Your task to perform on an android device: View the shopping cart on amazon.com. Add bose soundlink mini to the cart on amazon.com Image 0: 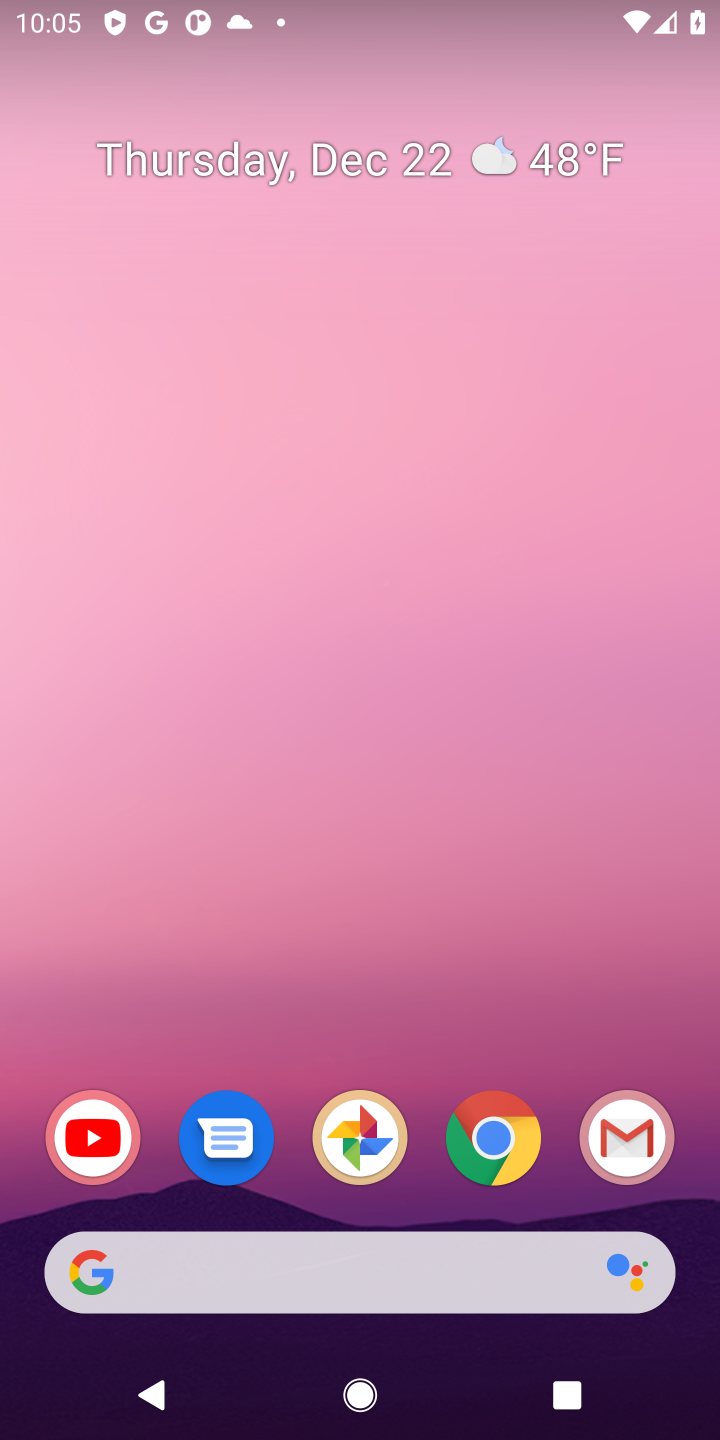
Step 0: click (484, 1151)
Your task to perform on an android device: View the shopping cart on amazon.com. Add bose soundlink mini to the cart on amazon.com Image 1: 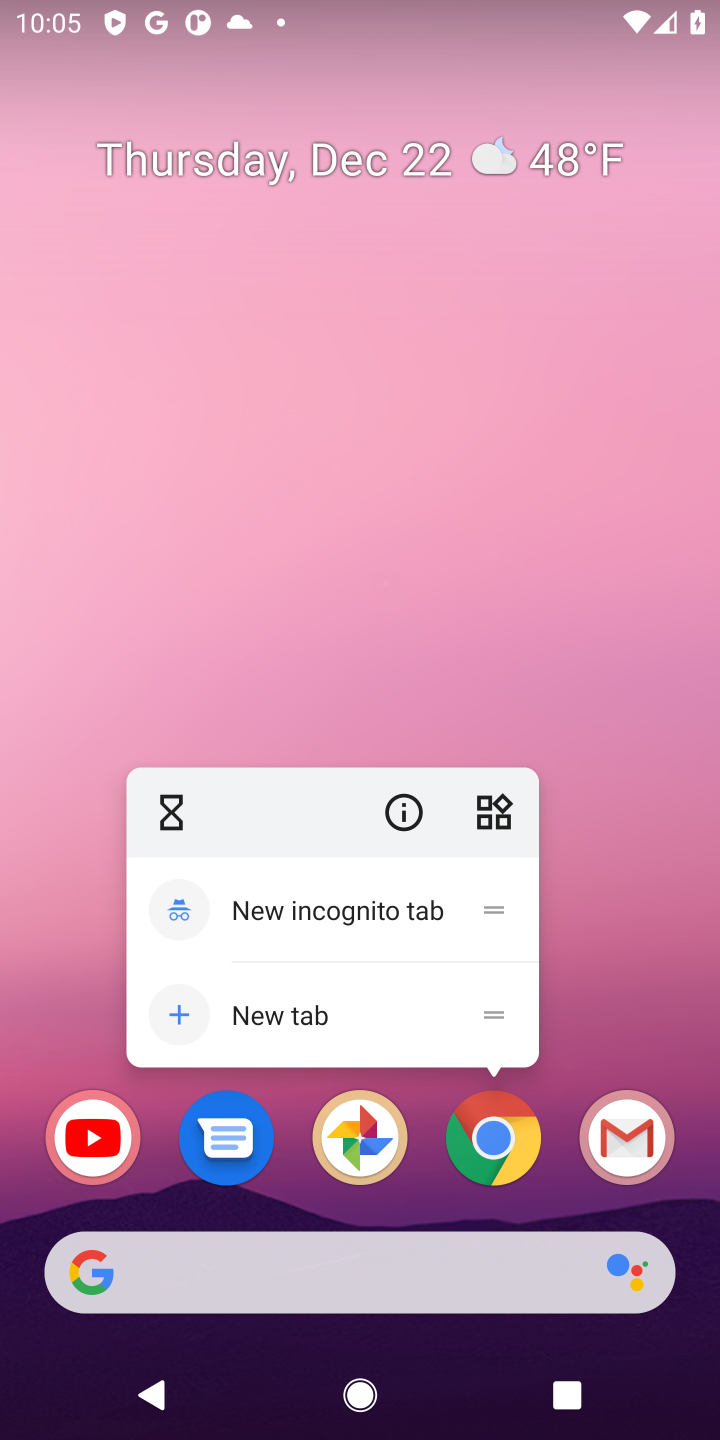
Step 1: click (484, 1151)
Your task to perform on an android device: View the shopping cart on amazon.com. Add bose soundlink mini to the cart on amazon.com Image 2: 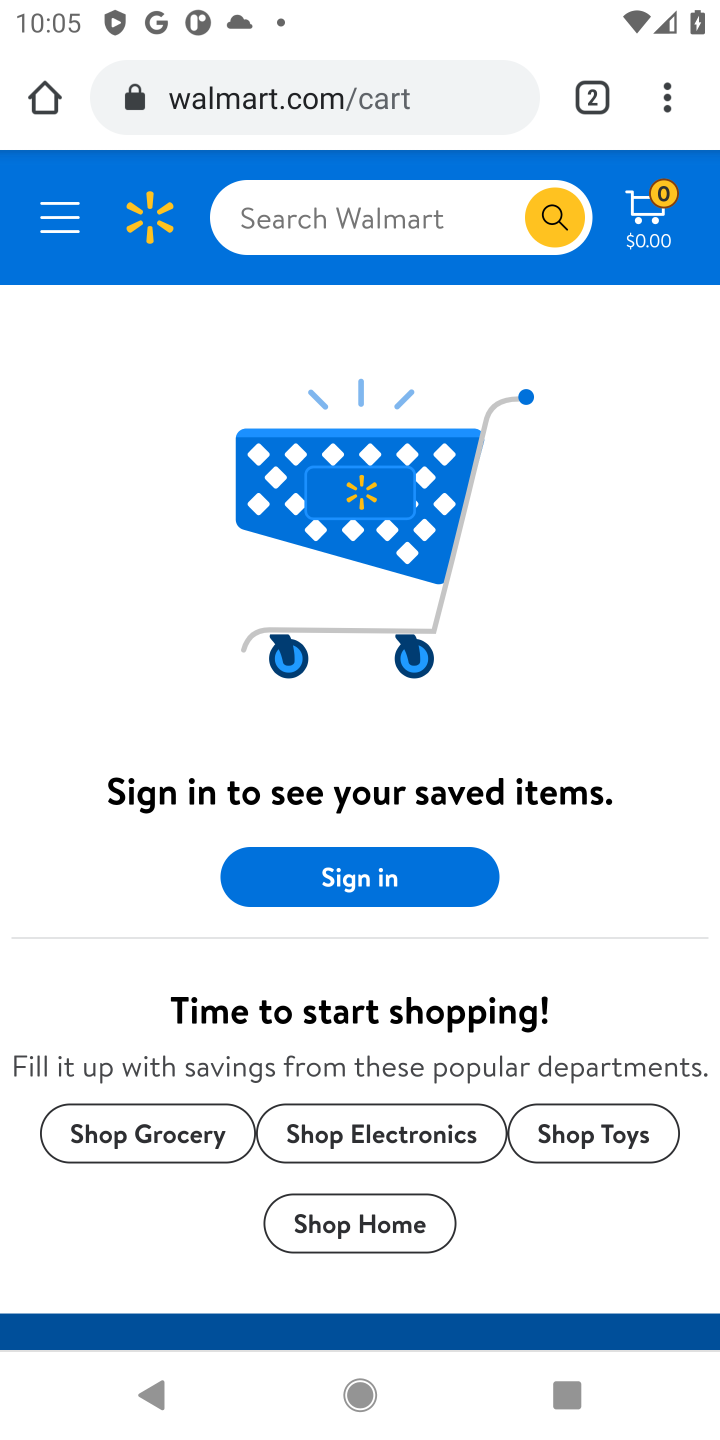
Step 2: click (248, 102)
Your task to perform on an android device: View the shopping cart on amazon.com. Add bose soundlink mini to the cart on amazon.com Image 3: 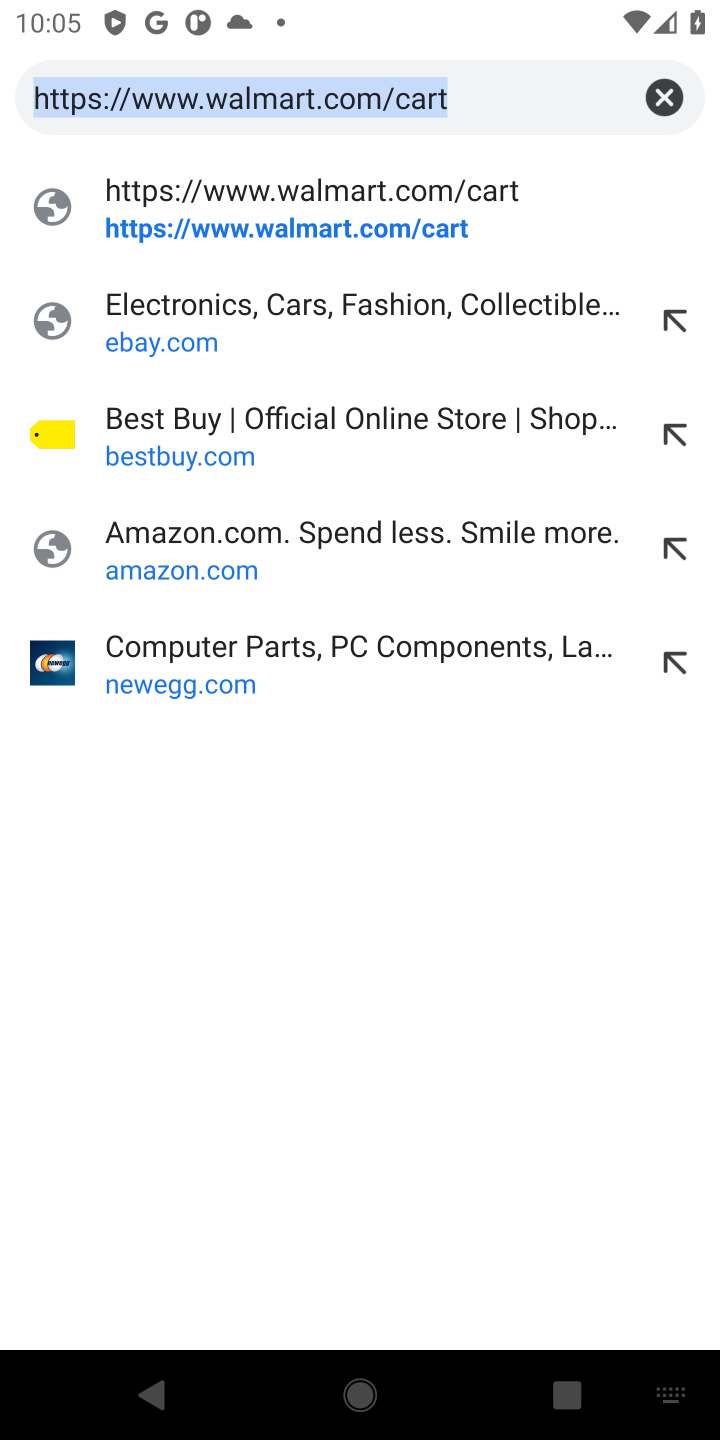
Step 3: type "amazon.com"
Your task to perform on an android device: View the shopping cart on amazon.com. Add bose soundlink mini to the cart on amazon.com Image 4: 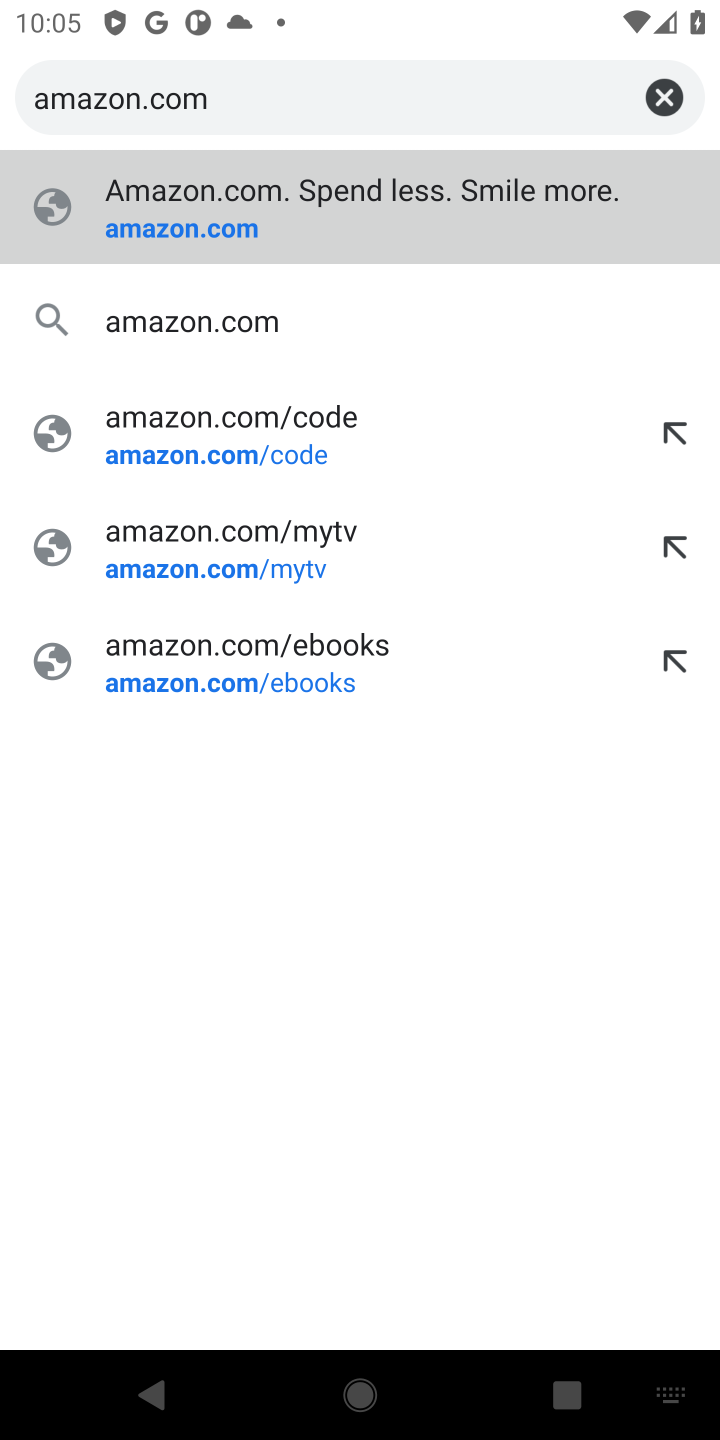
Step 4: click (429, 236)
Your task to perform on an android device: View the shopping cart on amazon.com. Add bose soundlink mini to the cart on amazon.com Image 5: 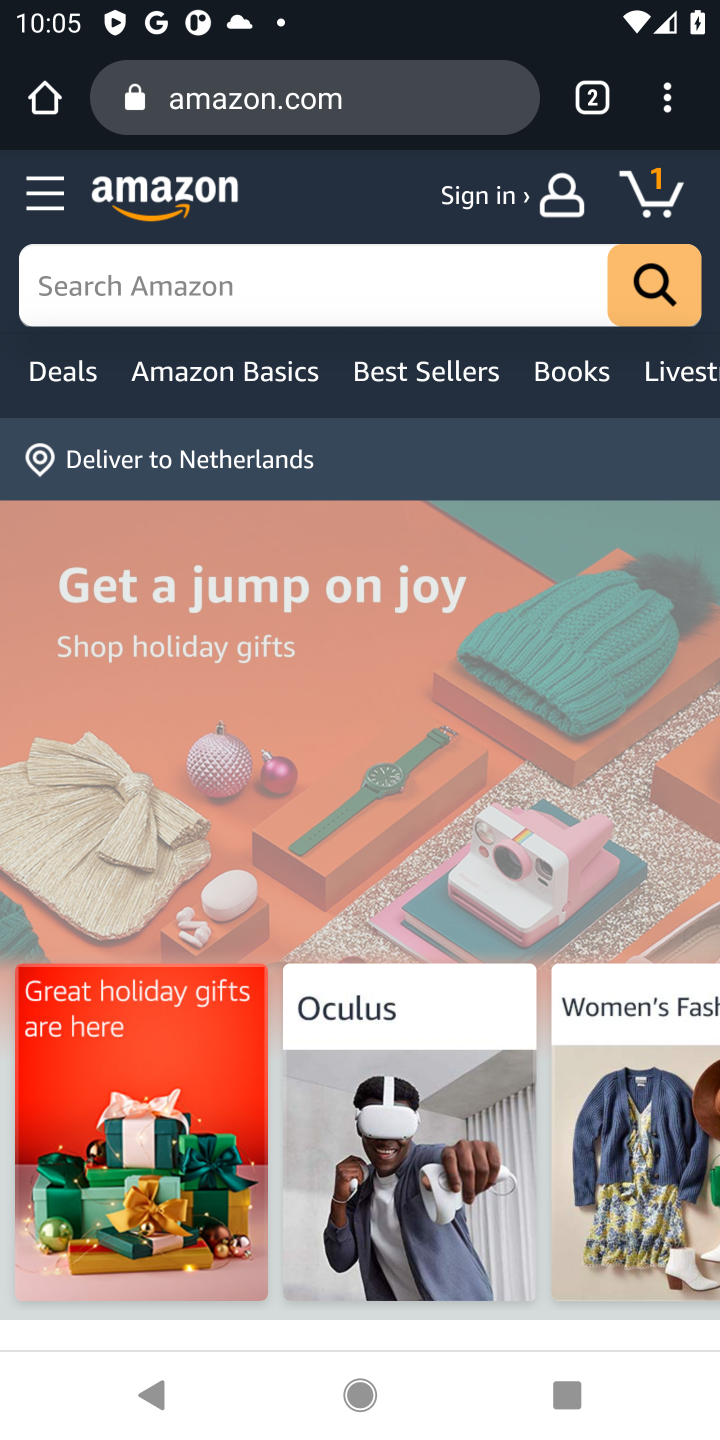
Step 5: click (644, 203)
Your task to perform on an android device: View the shopping cart on amazon.com. Add bose soundlink mini to the cart on amazon.com Image 6: 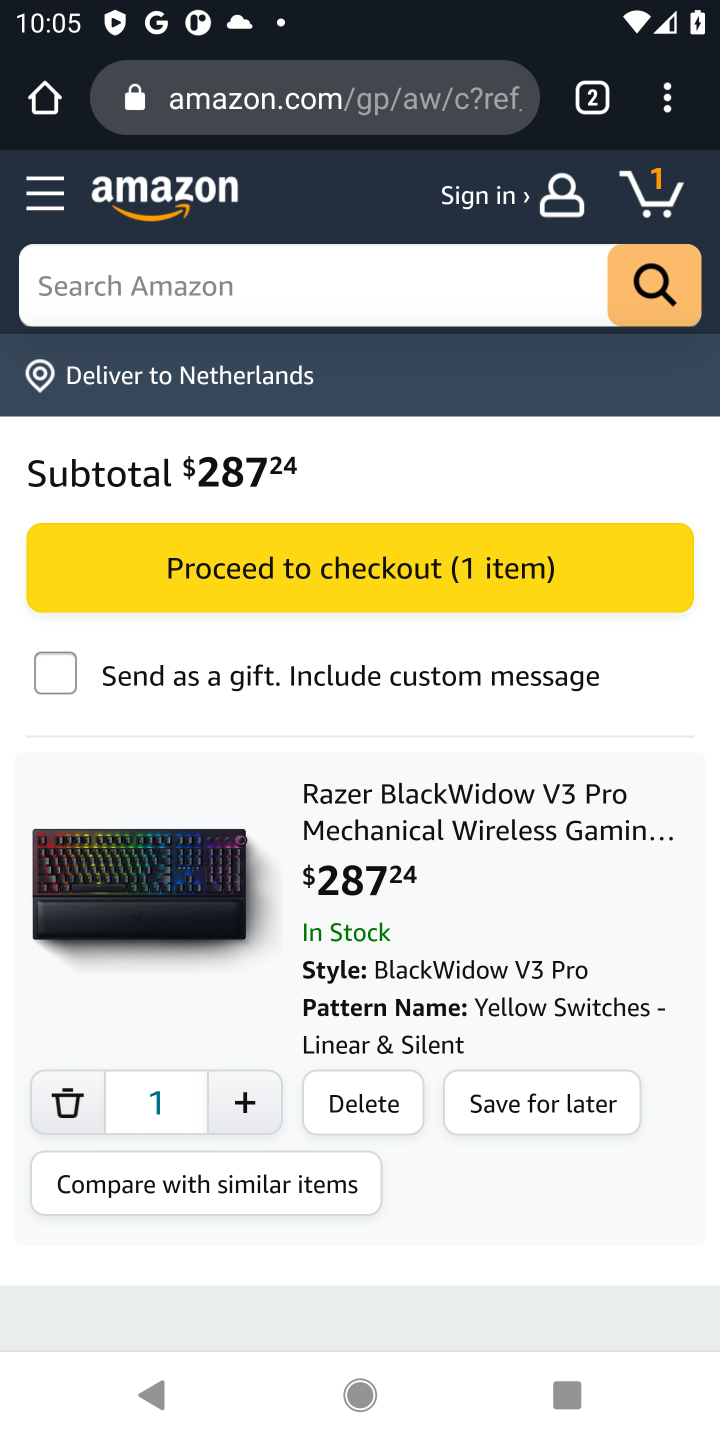
Step 6: click (346, 285)
Your task to perform on an android device: View the shopping cart on amazon.com. Add bose soundlink mini to the cart on amazon.com Image 7: 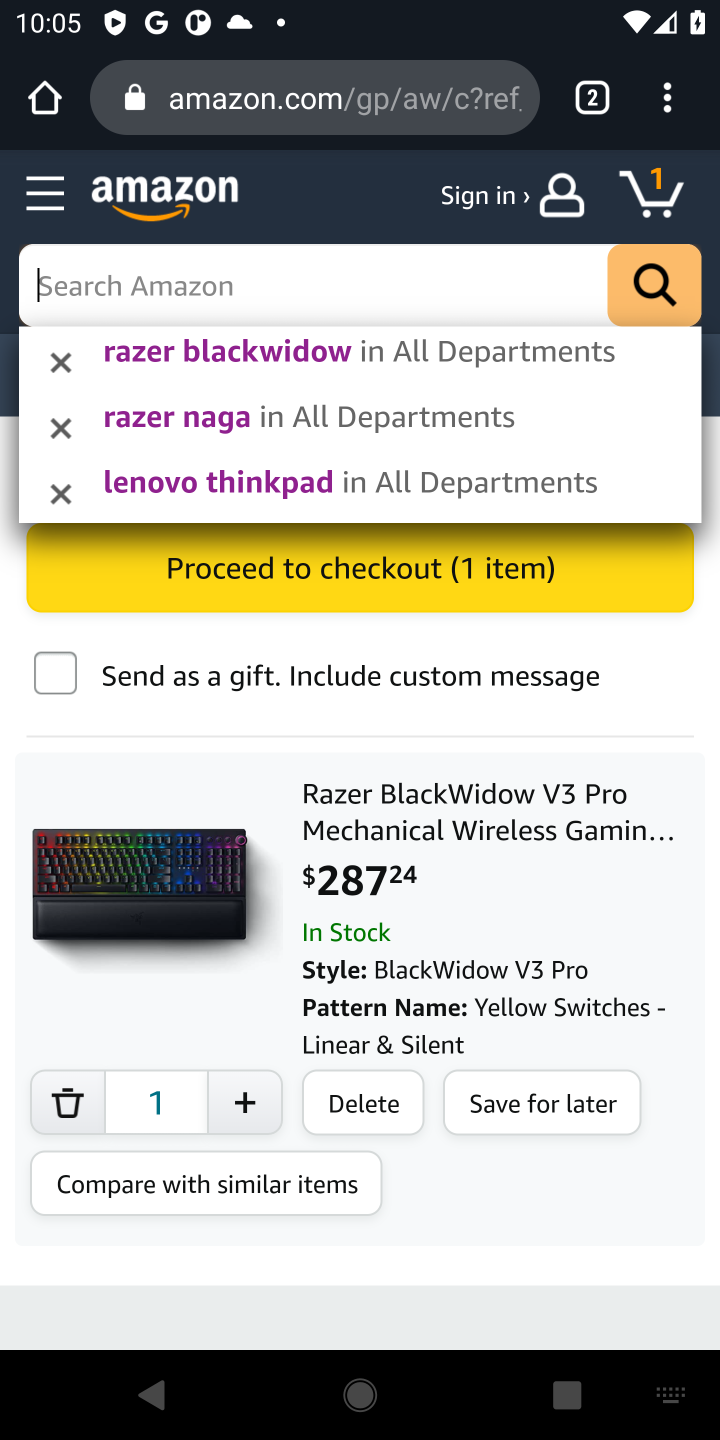
Step 7: type "bose soundlink mini"
Your task to perform on an android device: View the shopping cart on amazon.com. Add bose soundlink mini to the cart on amazon.com Image 8: 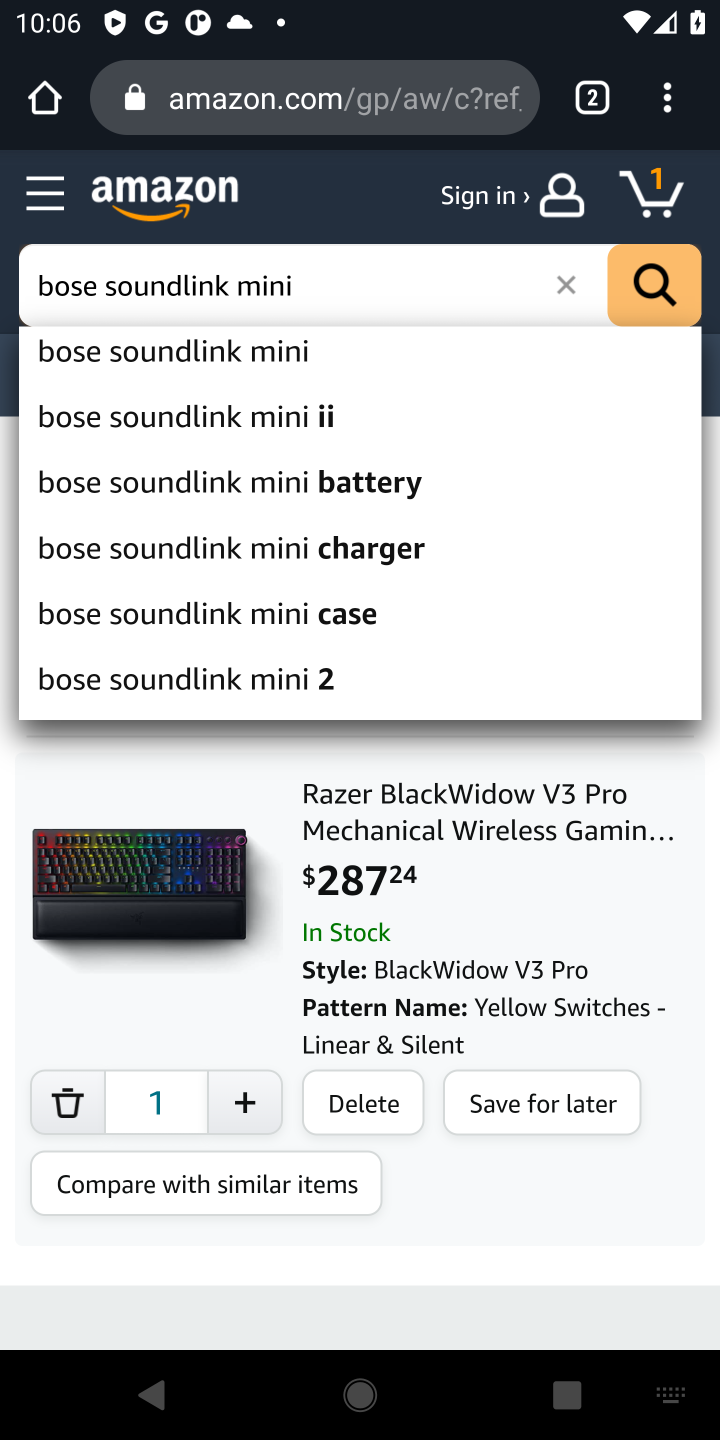
Step 8: click (301, 360)
Your task to perform on an android device: View the shopping cart on amazon.com. Add bose soundlink mini to the cart on amazon.com Image 9: 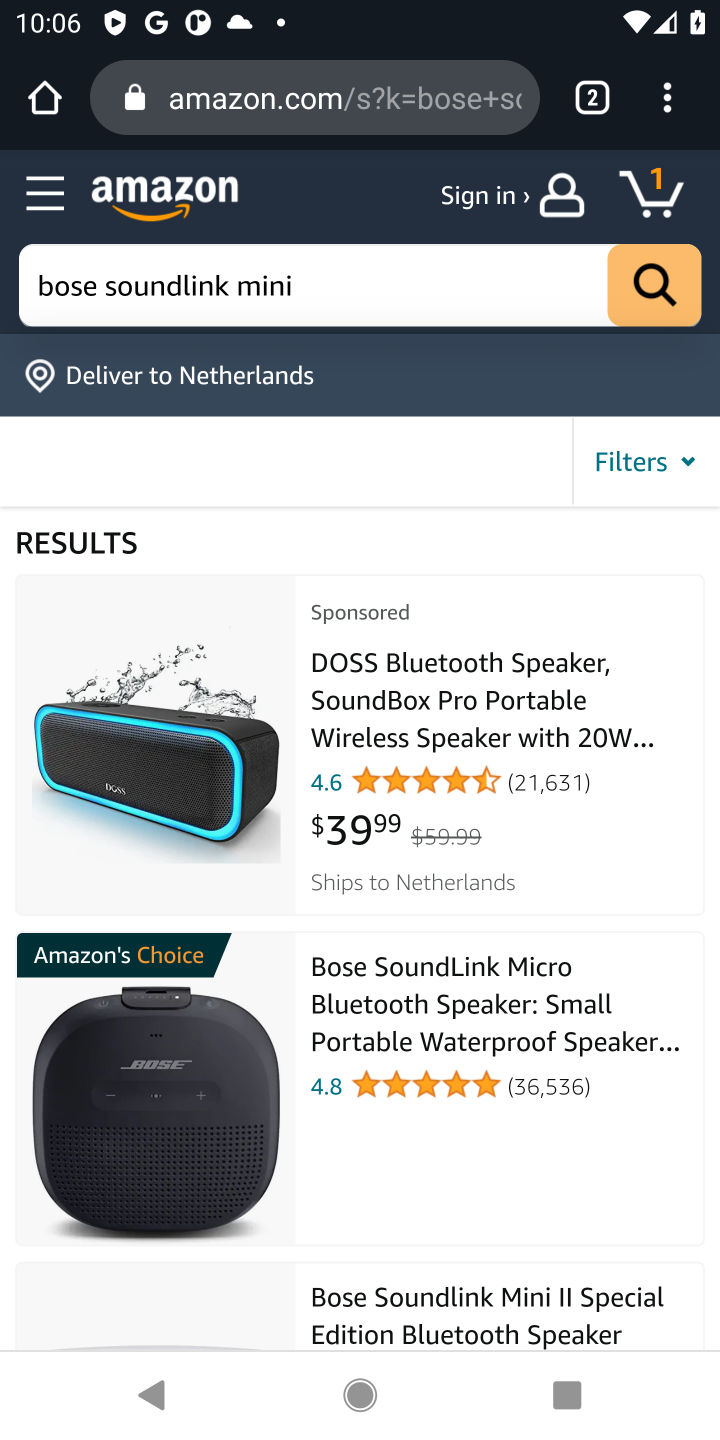
Step 9: drag from (449, 1246) to (450, 851)
Your task to perform on an android device: View the shopping cart on amazon.com. Add bose soundlink mini to the cart on amazon.com Image 10: 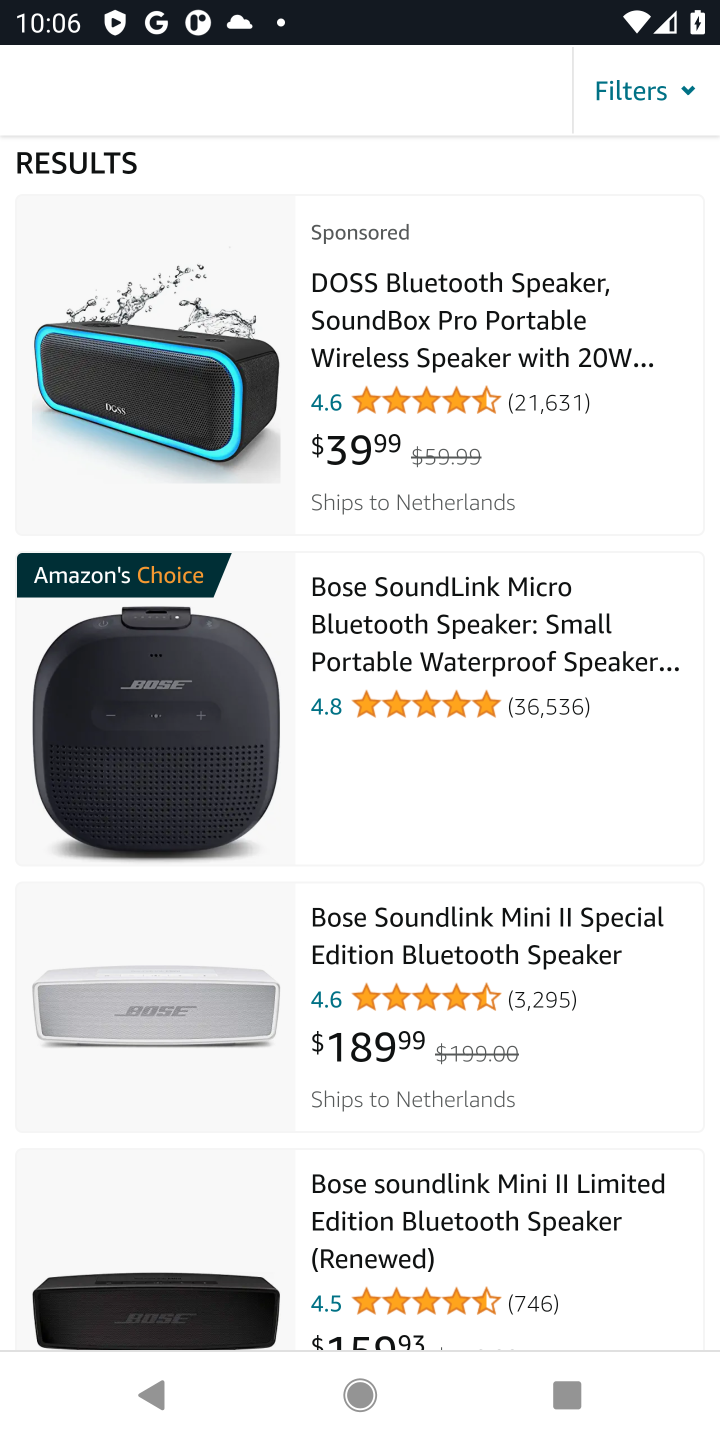
Step 10: click (350, 952)
Your task to perform on an android device: View the shopping cart on amazon.com. Add bose soundlink mini to the cart on amazon.com Image 11: 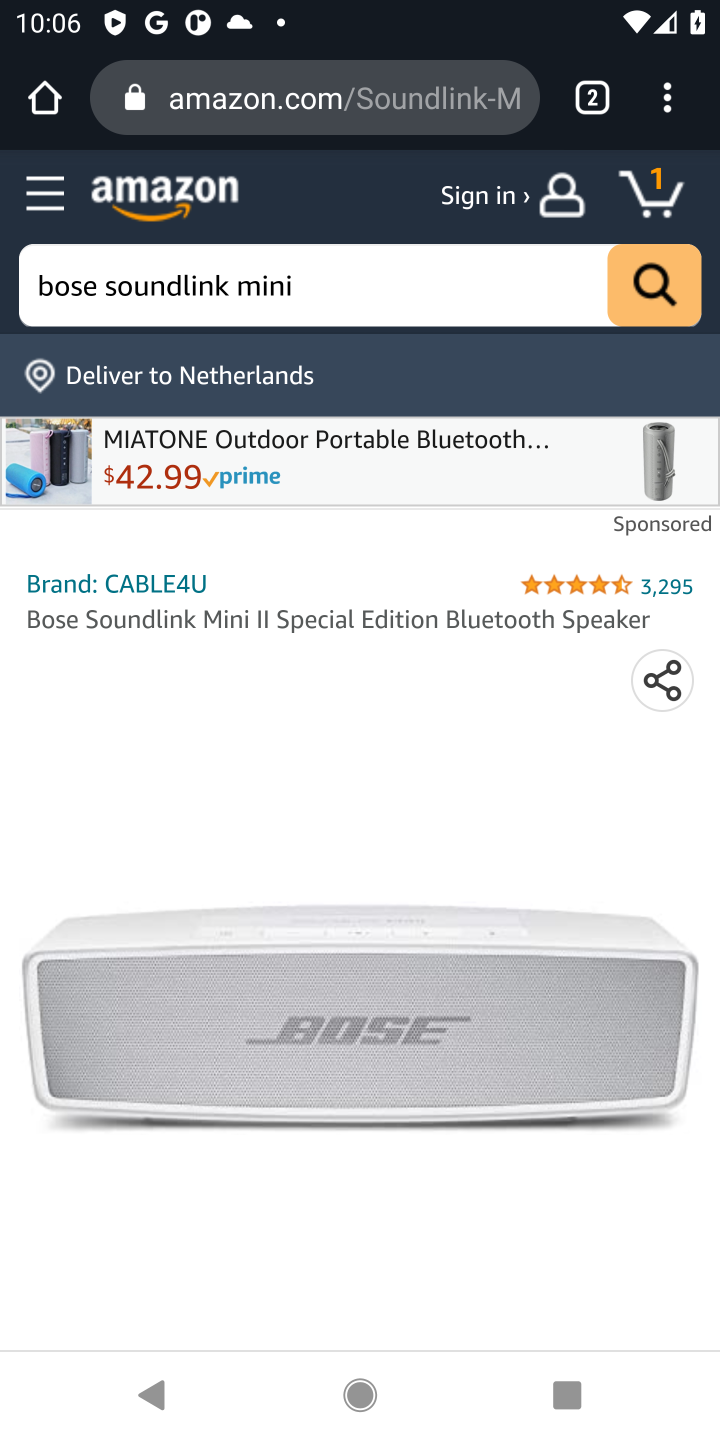
Step 11: drag from (519, 1266) to (524, 649)
Your task to perform on an android device: View the shopping cart on amazon.com. Add bose soundlink mini to the cart on amazon.com Image 12: 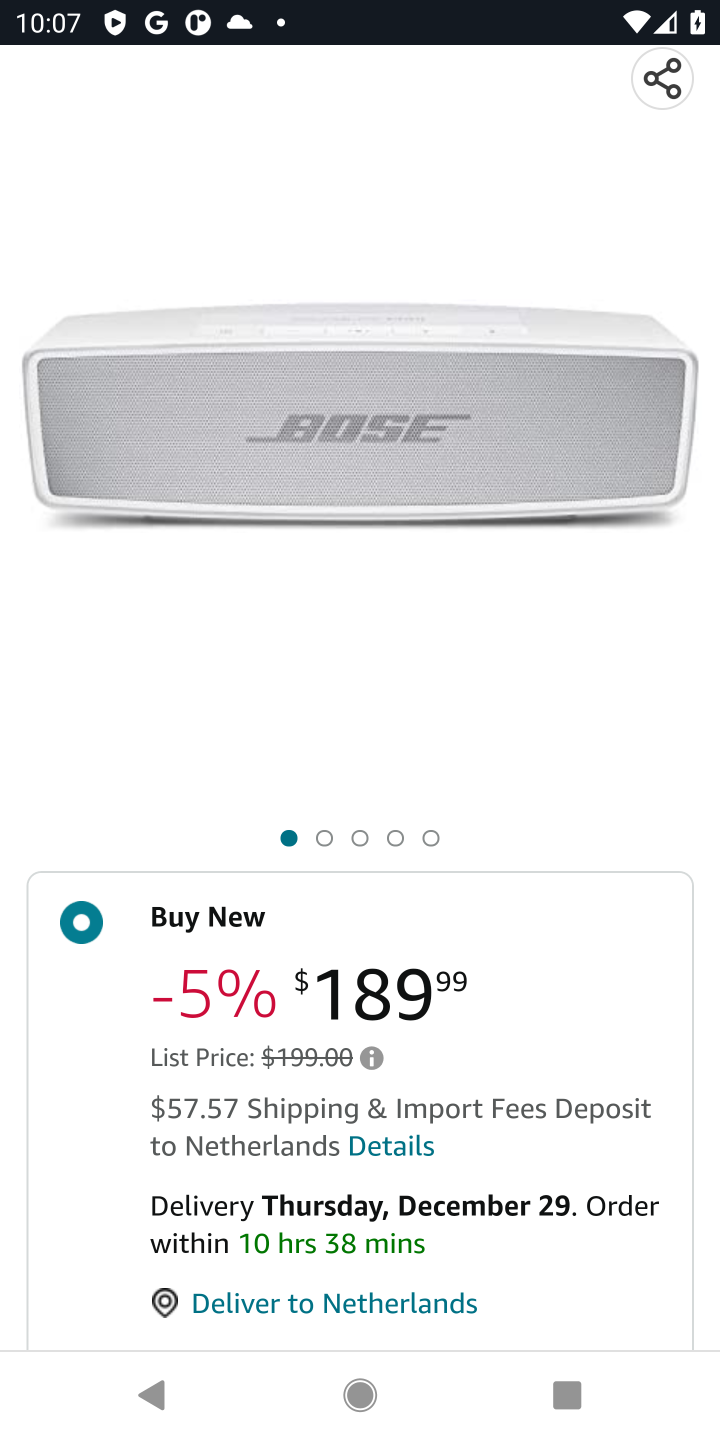
Step 12: press home button
Your task to perform on an android device: View the shopping cart on amazon.com. Add bose soundlink mini to the cart on amazon.com Image 13: 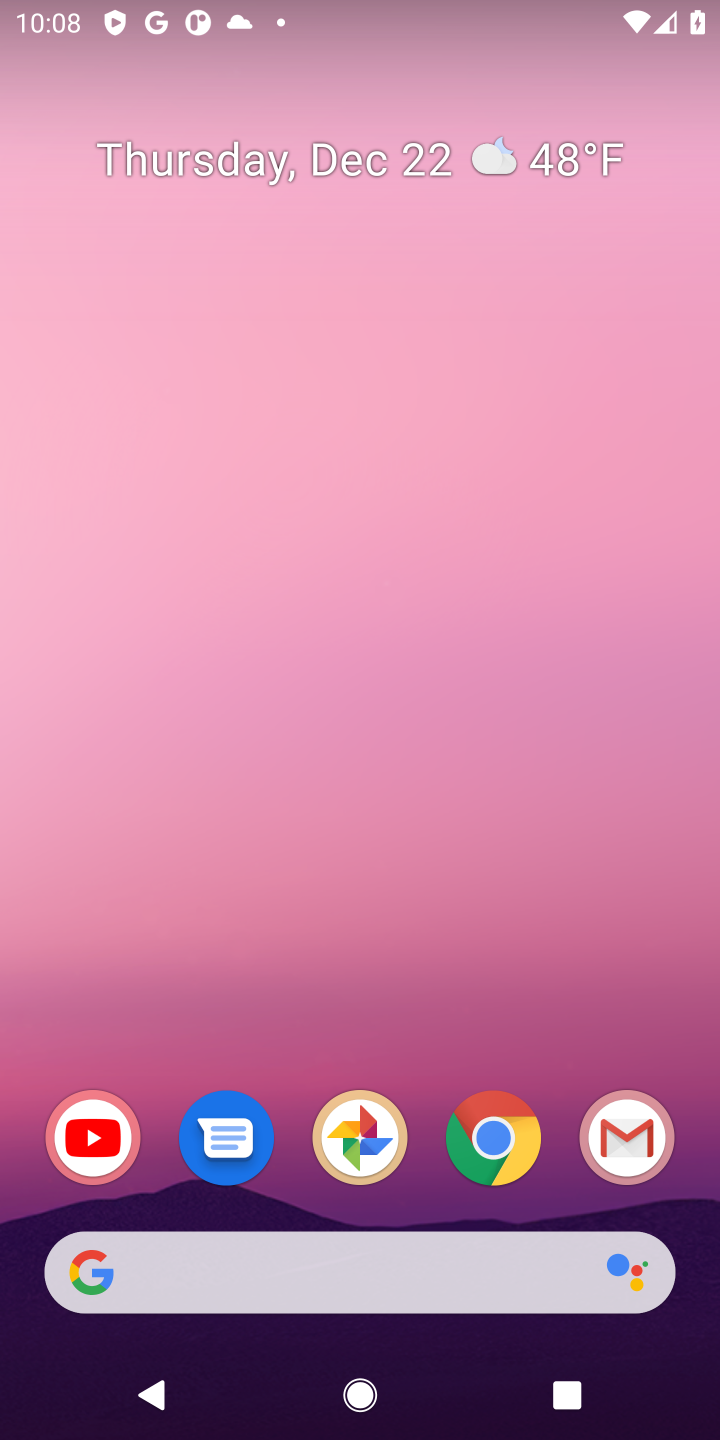
Step 13: click (497, 1145)
Your task to perform on an android device: View the shopping cart on amazon.com. Add bose soundlink mini to the cart on amazon.com Image 14: 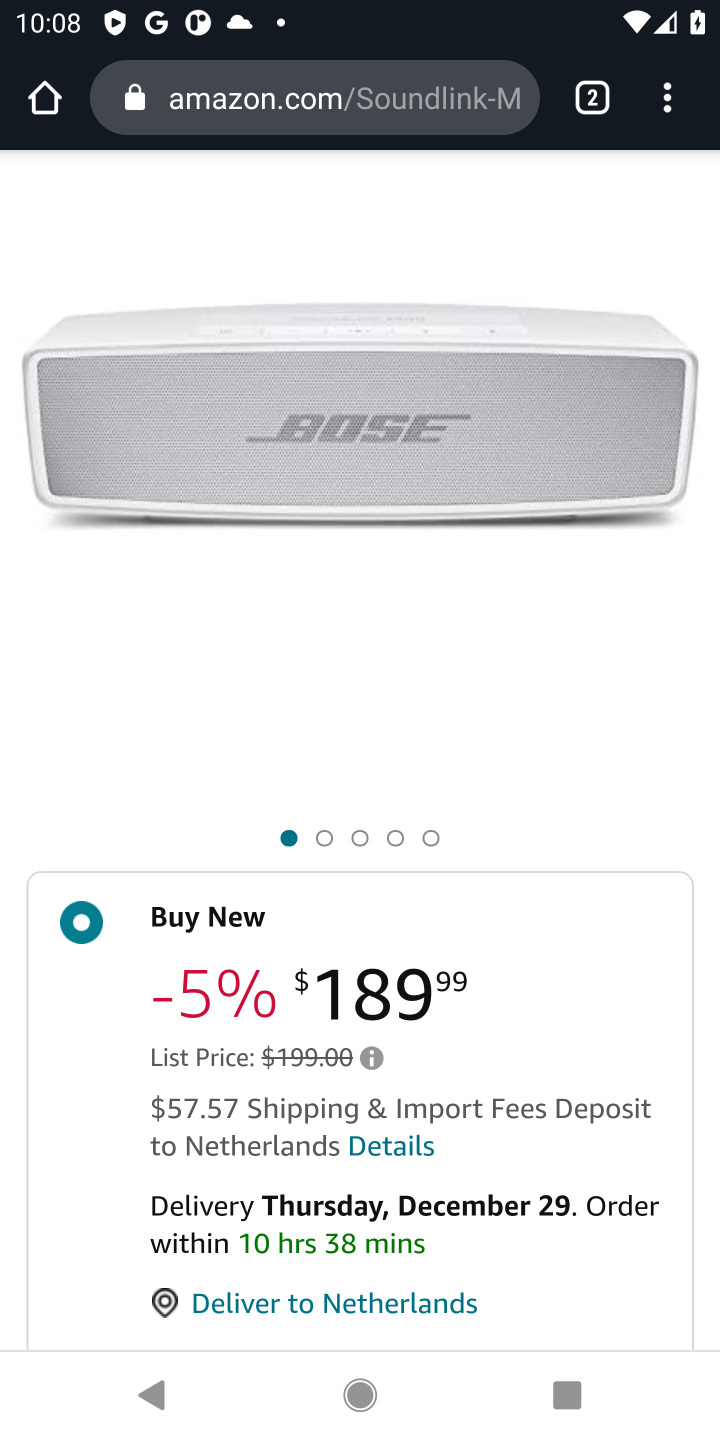
Step 14: press home button
Your task to perform on an android device: View the shopping cart on amazon.com. Add bose soundlink mini to the cart on amazon.com Image 15: 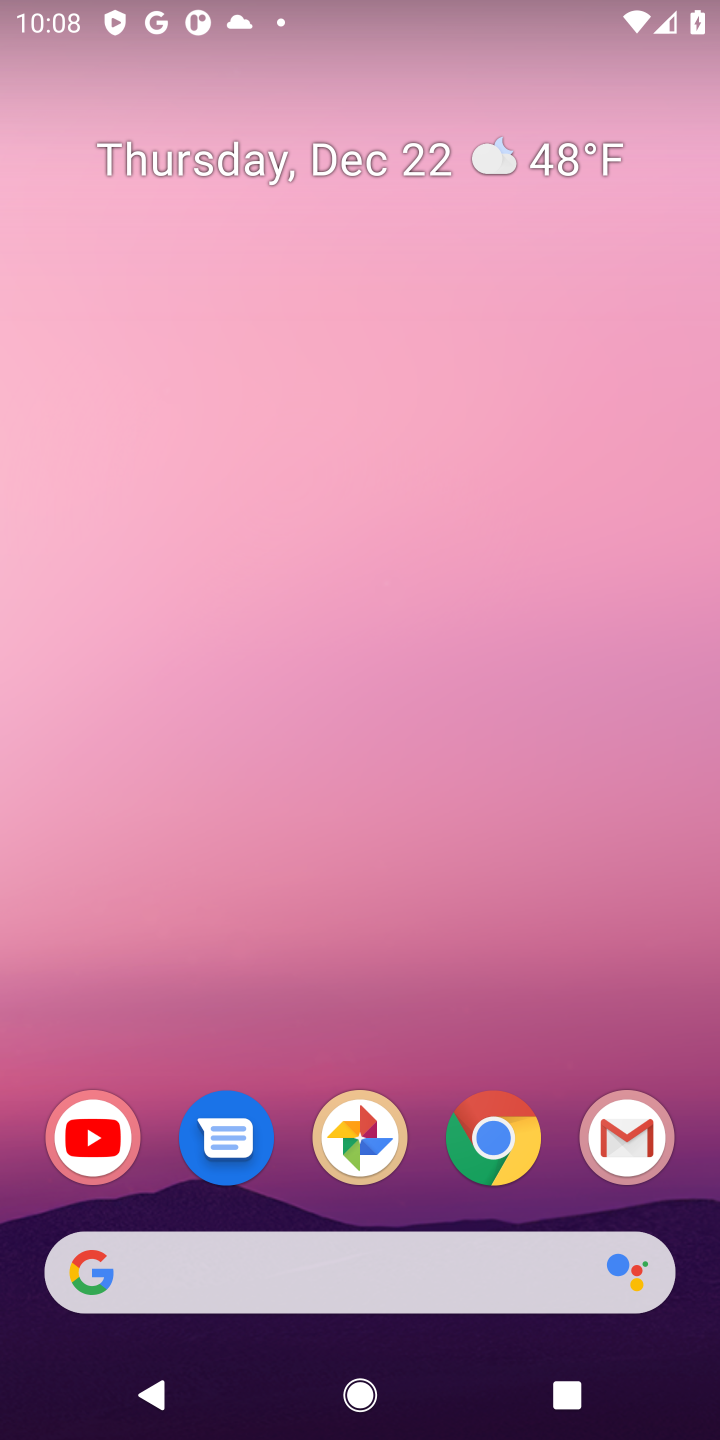
Step 15: click (476, 1138)
Your task to perform on an android device: View the shopping cart on amazon.com. Add bose soundlink mini to the cart on amazon.com Image 16: 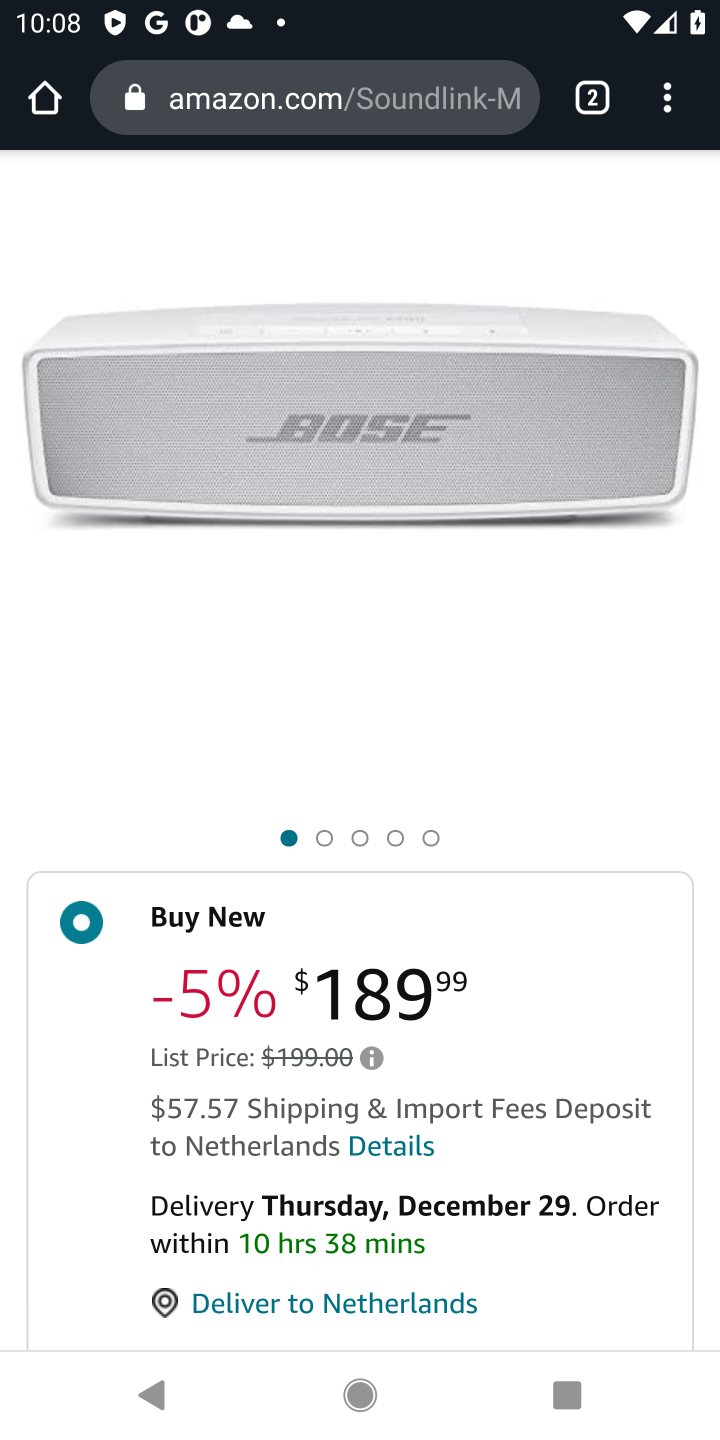
Step 16: drag from (359, 322) to (425, 232)
Your task to perform on an android device: View the shopping cart on amazon.com. Add bose soundlink mini to the cart on amazon.com Image 17: 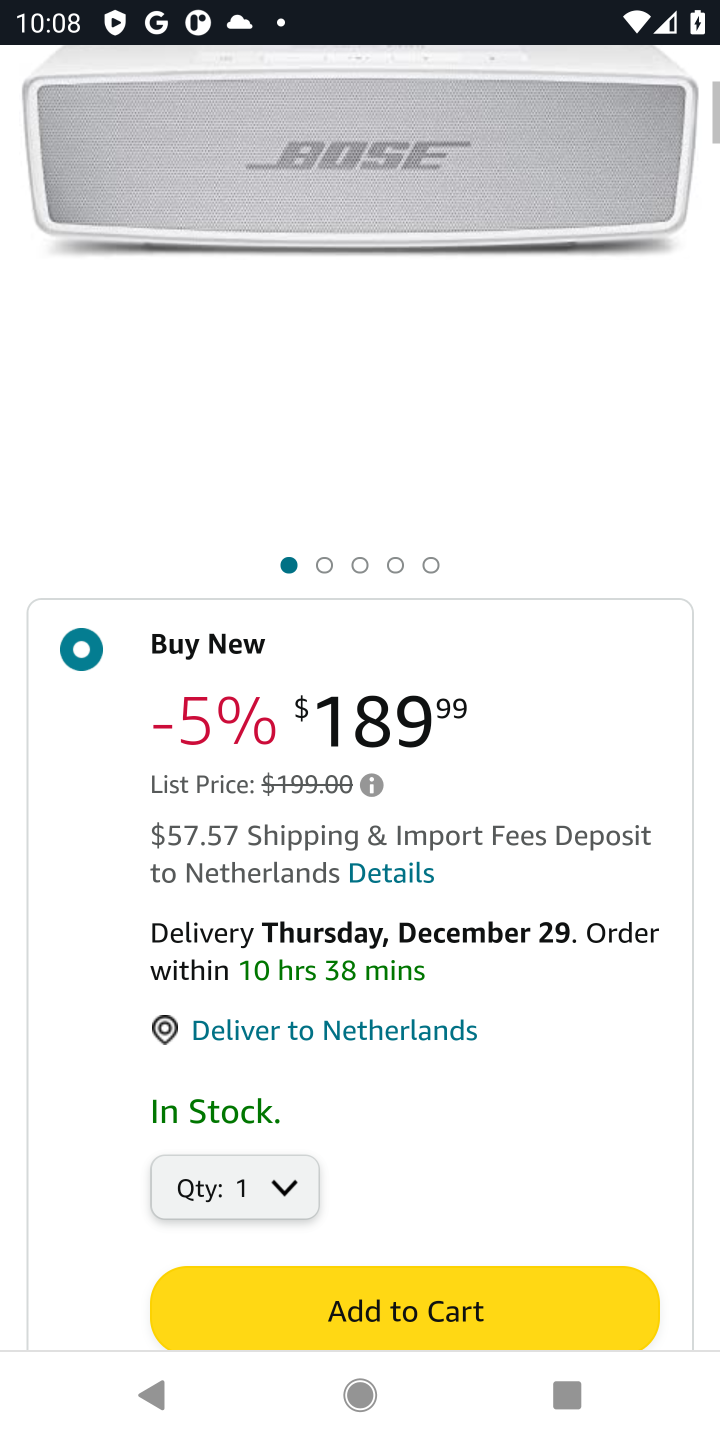
Step 17: drag from (491, 1205) to (372, 584)
Your task to perform on an android device: View the shopping cart on amazon.com. Add bose soundlink mini to the cart on amazon.com Image 18: 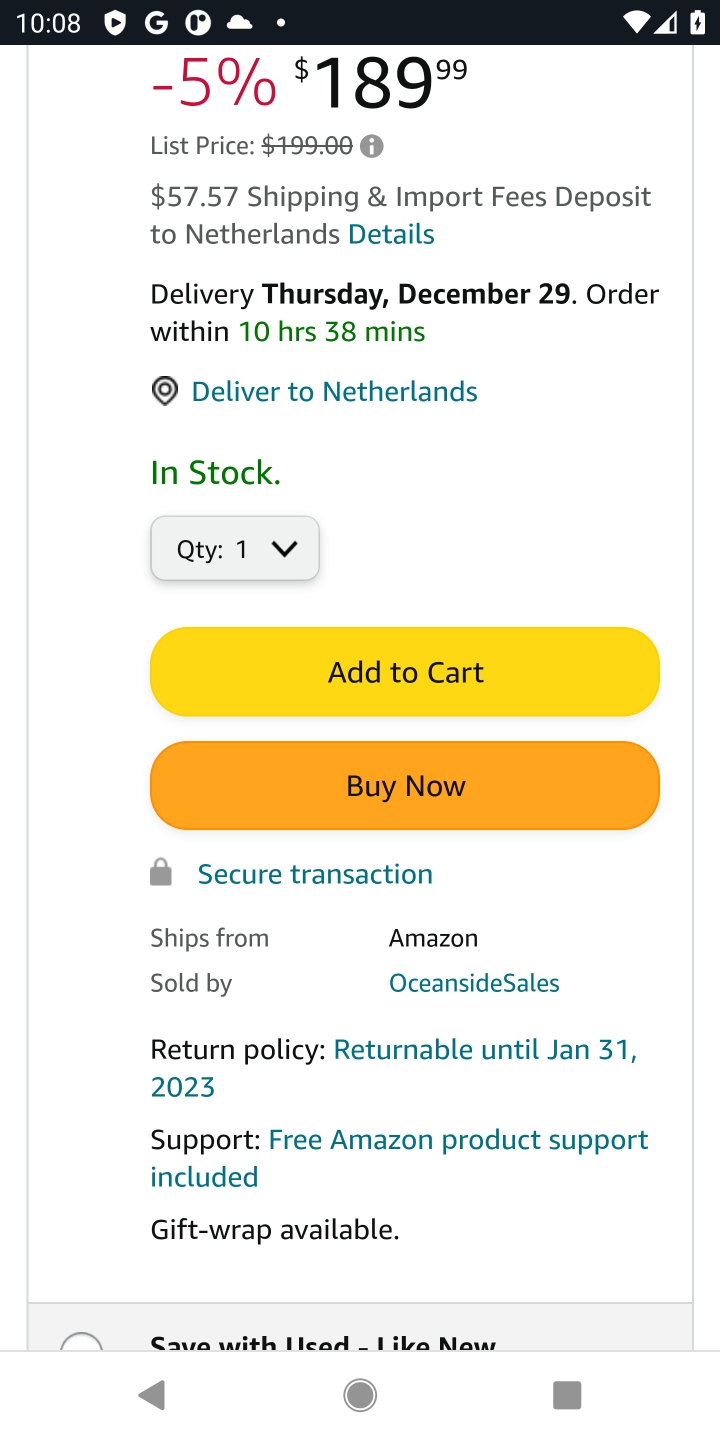
Step 18: click (406, 673)
Your task to perform on an android device: View the shopping cart on amazon.com. Add bose soundlink mini to the cart on amazon.com Image 19: 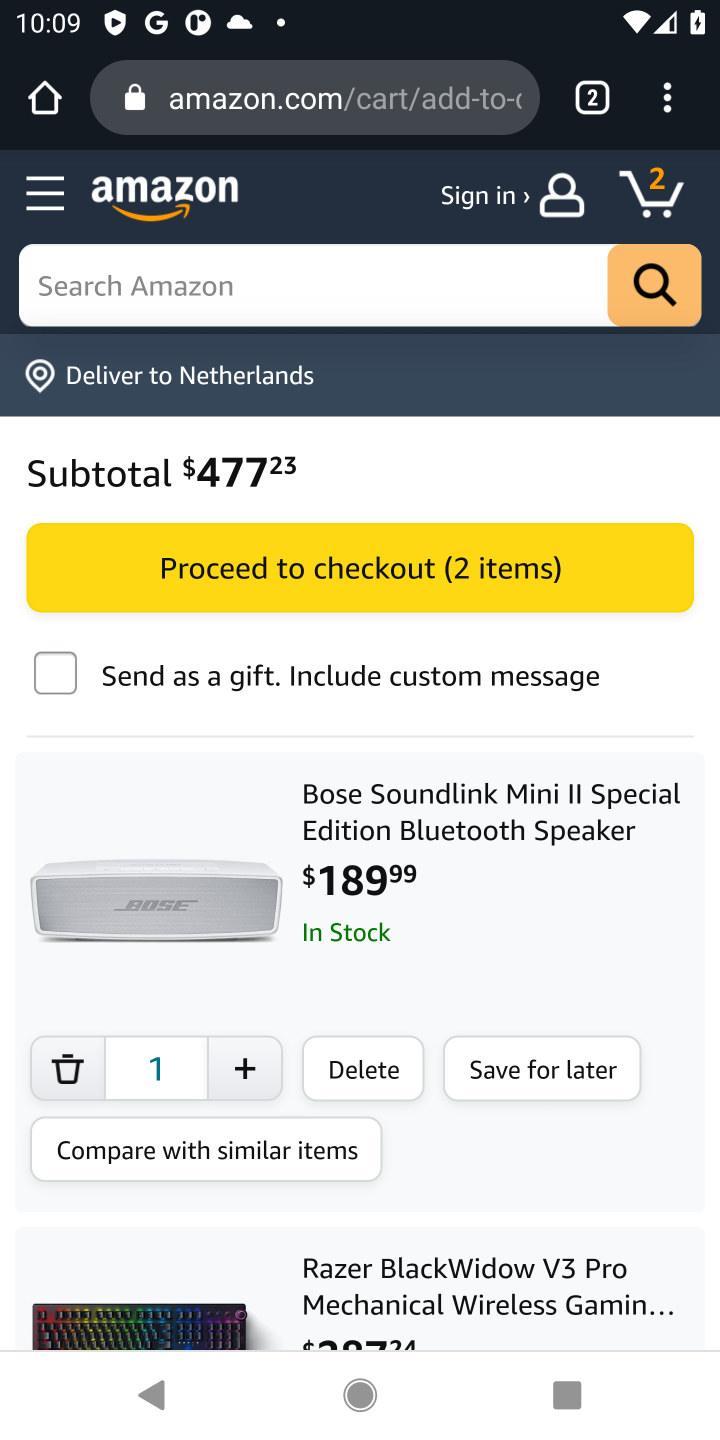
Step 19: task complete